Your task to perform on an android device: turn on the 24-hour format for clock Image 0: 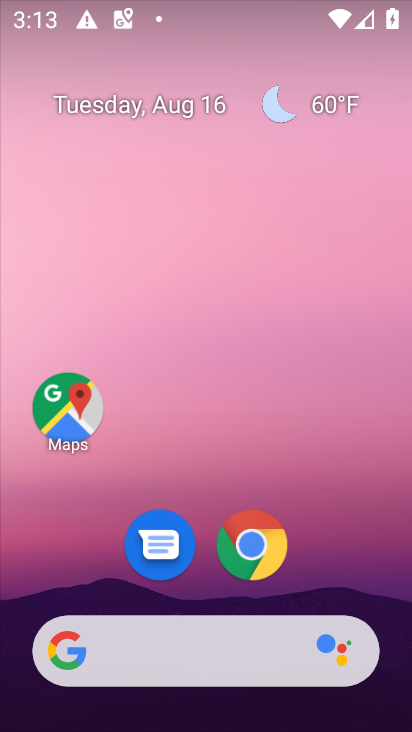
Step 0: drag from (173, 608) to (168, 186)
Your task to perform on an android device: turn on the 24-hour format for clock Image 1: 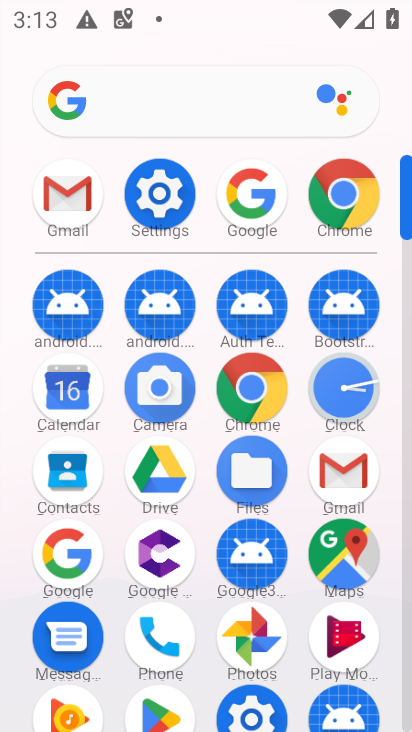
Step 1: click (337, 405)
Your task to perform on an android device: turn on the 24-hour format for clock Image 2: 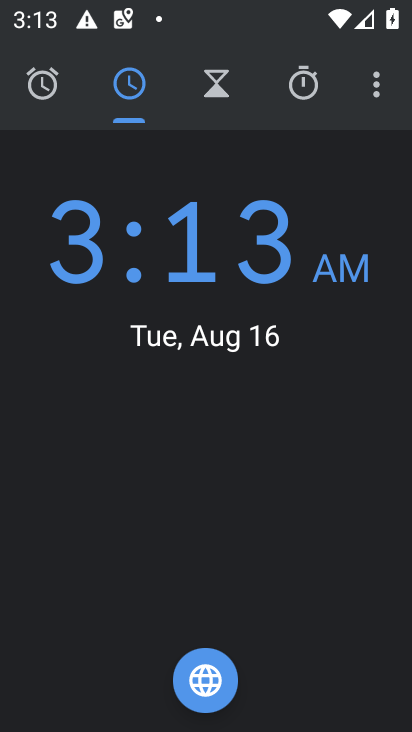
Step 2: click (375, 87)
Your task to perform on an android device: turn on the 24-hour format for clock Image 3: 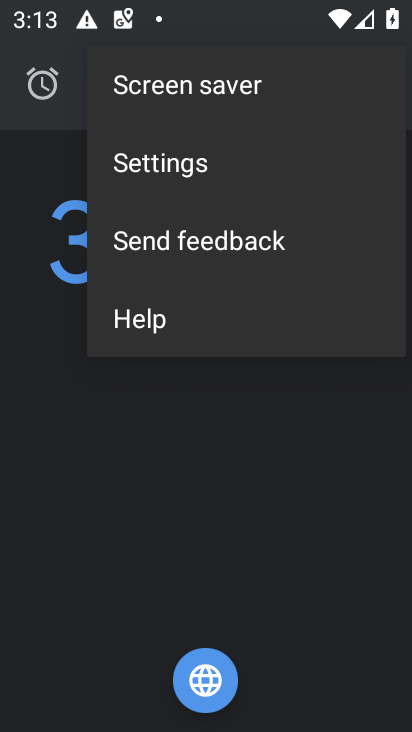
Step 3: click (167, 170)
Your task to perform on an android device: turn on the 24-hour format for clock Image 4: 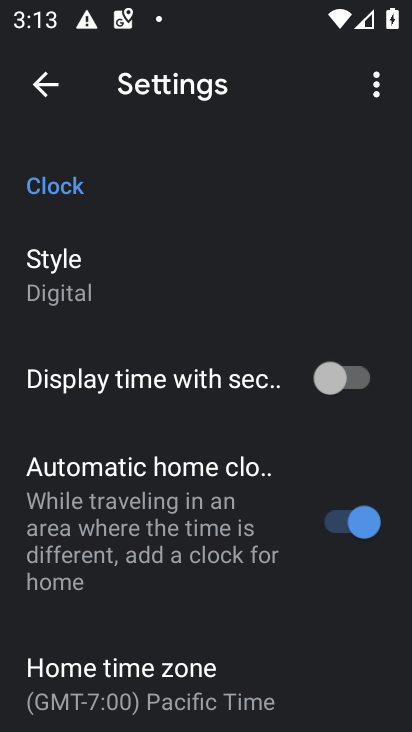
Step 4: drag from (113, 657) to (121, 262)
Your task to perform on an android device: turn on the 24-hour format for clock Image 5: 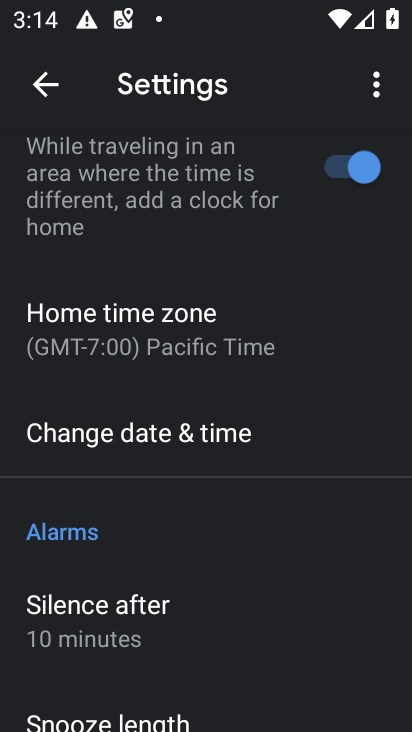
Step 5: click (110, 436)
Your task to perform on an android device: turn on the 24-hour format for clock Image 6: 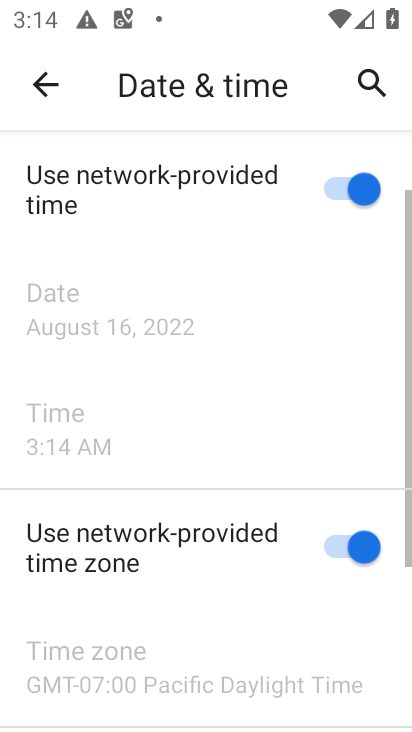
Step 6: drag from (177, 598) to (171, 217)
Your task to perform on an android device: turn on the 24-hour format for clock Image 7: 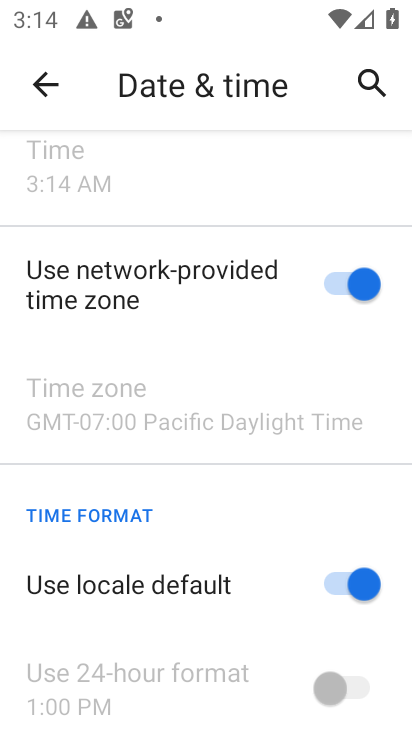
Step 7: click (352, 682)
Your task to perform on an android device: turn on the 24-hour format for clock Image 8: 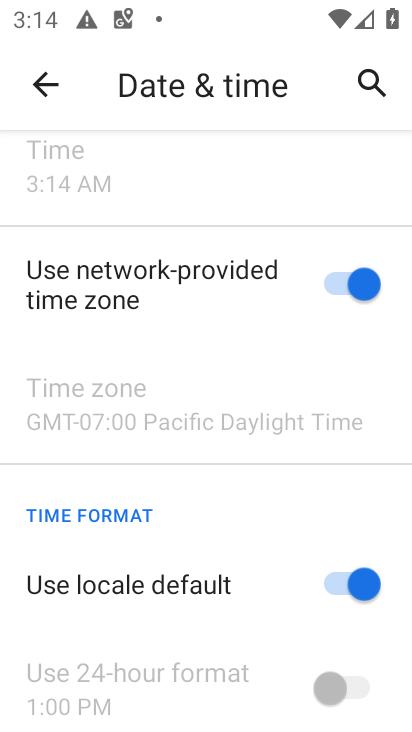
Step 8: click (328, 576)
Your task to perform on an android device: turn on the 24-hour format for clock Image 9: 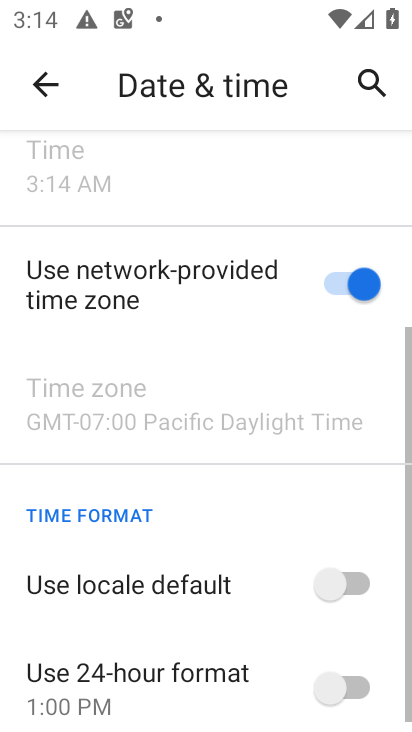
Step 9: click (346, 687)
Your task to perform on an android device: turn on the 24-hour format for clock Image 10: 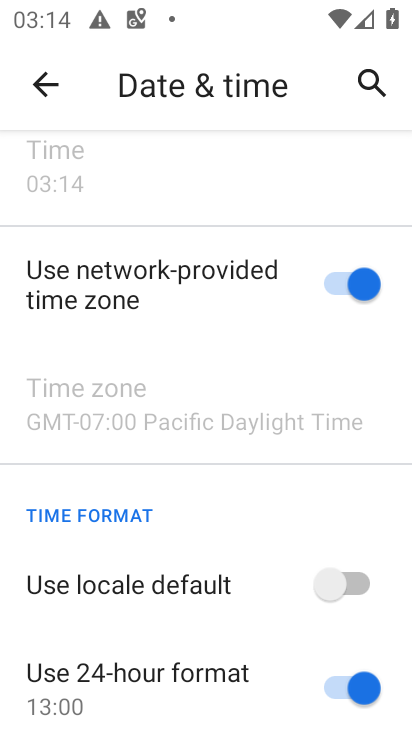
Step 10: task complete